Your task to perform on an android device: toggle data saver in the chrome app Image 0: 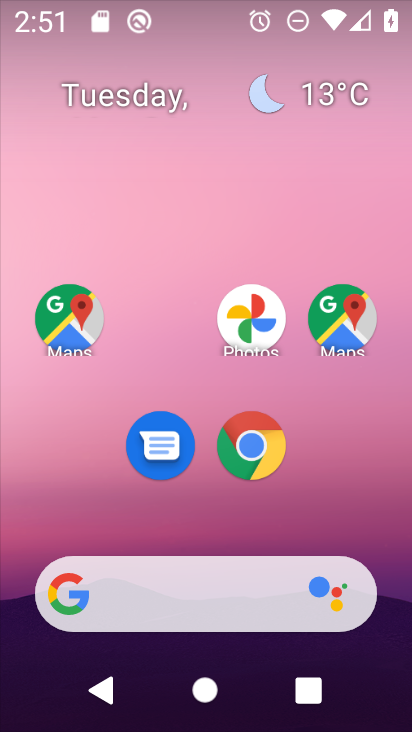
Step 0: drag from (371, 531) to (388, 268)
Your task to perform on an android device: toggle data saver in the chrome app Image 1: 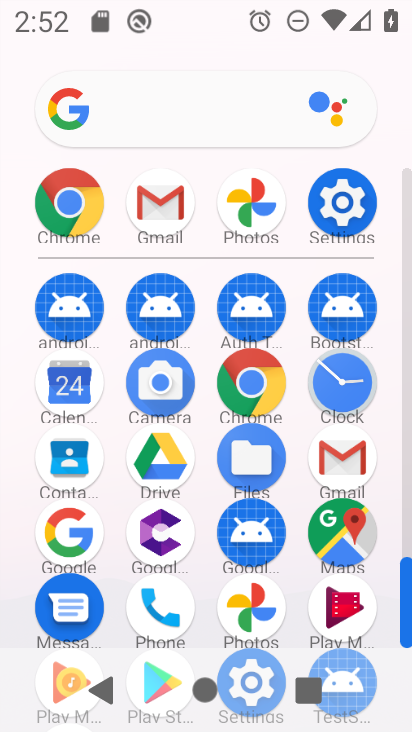
Step 1: click (259, 392)
Your task to perform on an android device: toggle data saver in the chrome app Image 2: 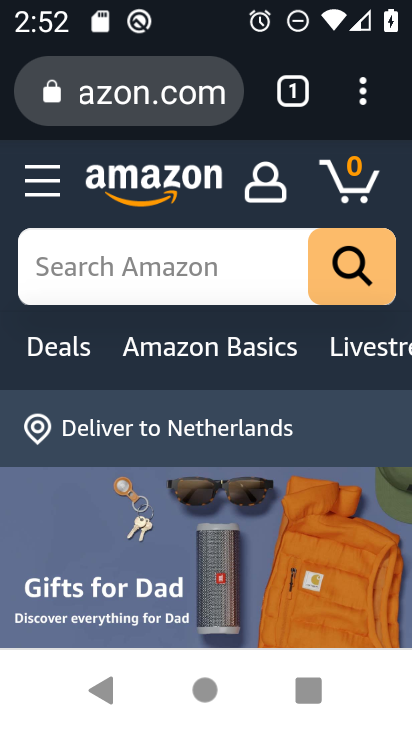
Step 2: click (364, 104)
Your task to perform on an android device: toggle data saver in the chrome app Image 3: 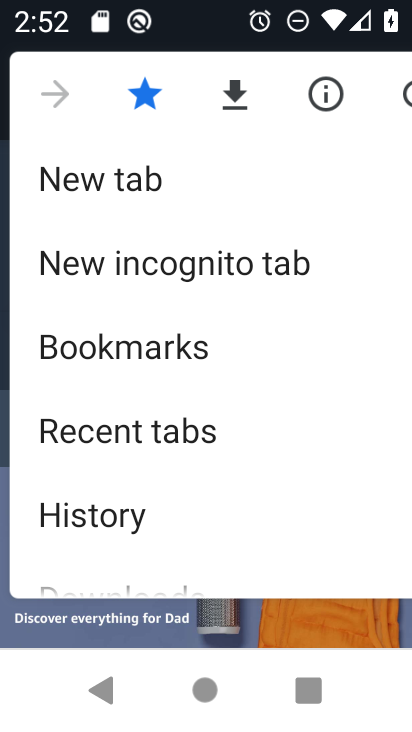
Step 3: drag from (280, 498) to (274, 375)
Your task to perform on an android device: toggle data saver in the chrome app Image 4: 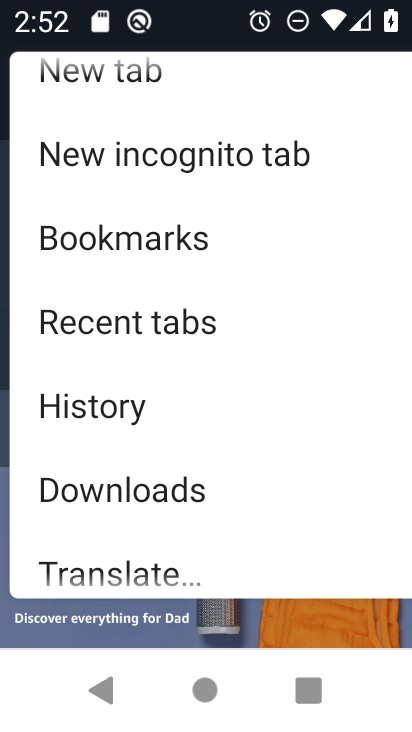
Step 4: drag from (319, 511) to (305, 377)
Your task to perform on an android device: toggle data saver in the chrome app Image 5: 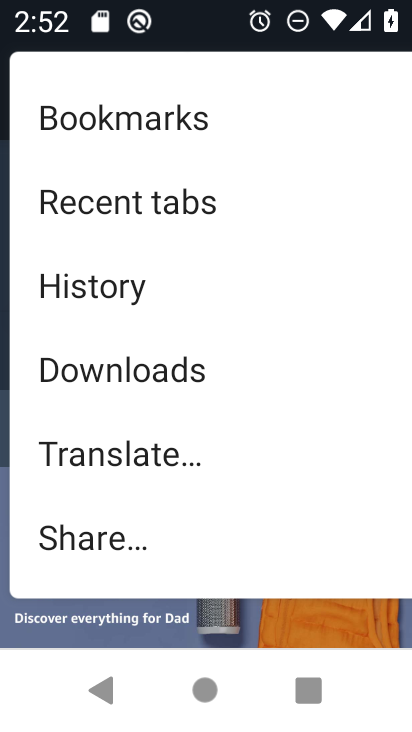
Step 5: drag from (303, 523) to (308, 413)
Your task to perform on an android device: toggle data saver in the chrome app Image 6: 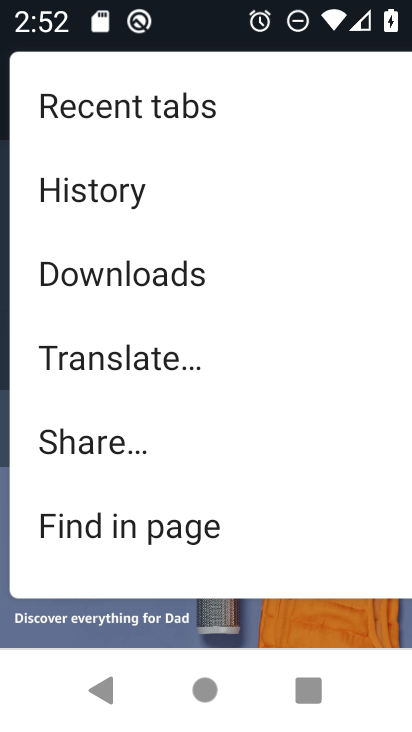
Step 6: drag from (313, 542) to (321, 463)
Your task to perform on an android device: toggle data saver in the chrome app Image 7: 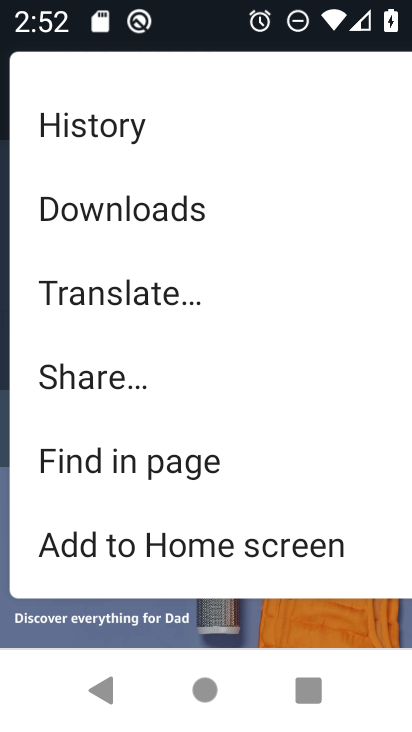
Step 7: drag from (357, 556) to (356, 435)
Your task to perform on an android device: toggle data saver in the chrome app Image 8: 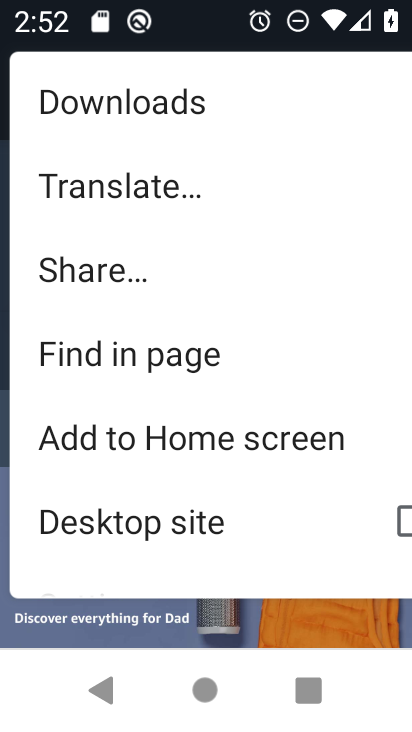
Step 8: drag from (341, 528) to (344, 399)
Your task to perform on an android device: toggle data saver in the chrome app Image 9: 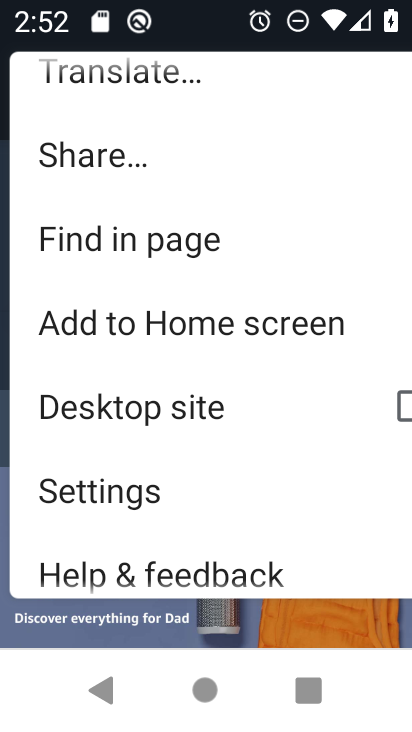
Step 9: drag from (305, 521) to (311, 392)
Your task to perform on an android device: toggle data saver in the chrome app Image 10: 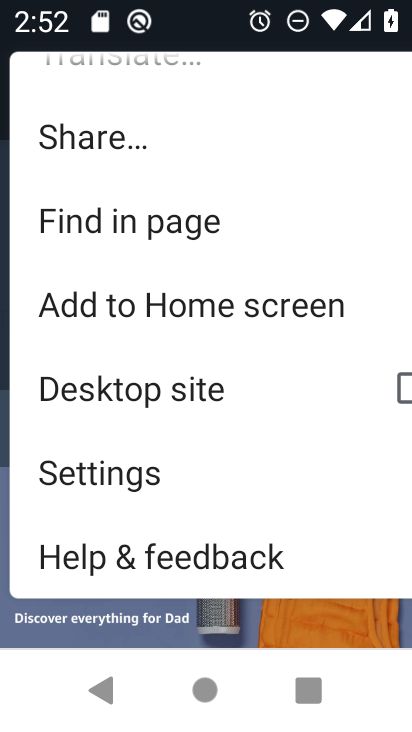
Step 10: click (101, 480)
Your task to perform on an android device: toggle data saver in the chrome app Image 11: 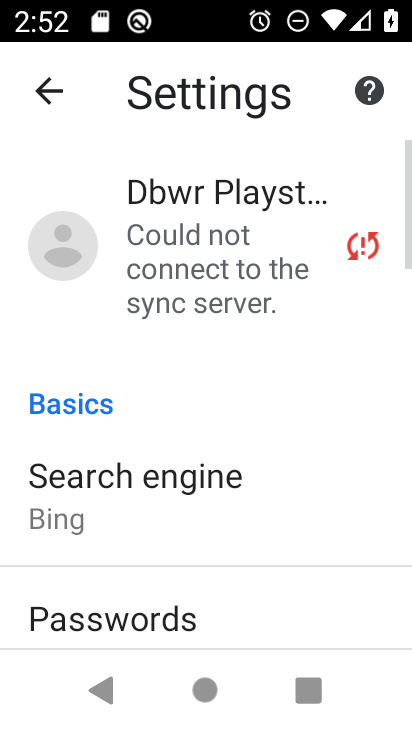
Step 11: drag from (324, 529) to (326, 442)
Your task to perform on an android device: toggle data saver in the chrome app Image 12: 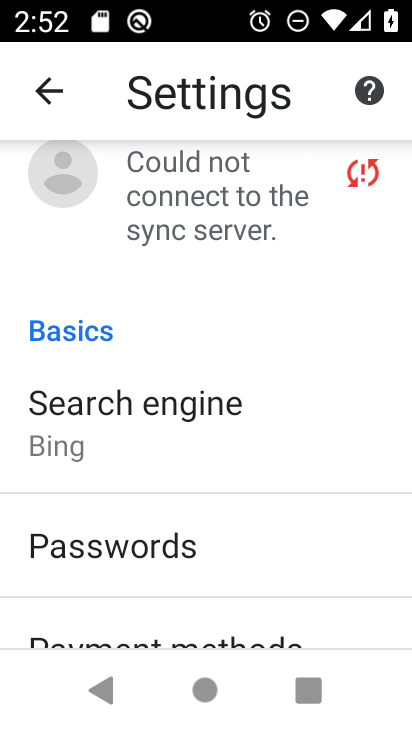
Step 12: drag from (334, 567) to (331, 482)
Your task to perform on an android device: toggle data saver in the chrome app Image 13: 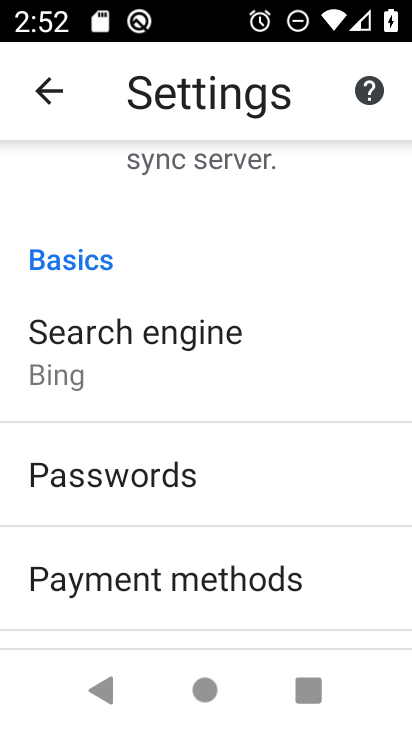
Step 13: drag from (344, 575) to (344, 478)
Your task to perform on an android device: toggle data saver in the chrome app Image 14: 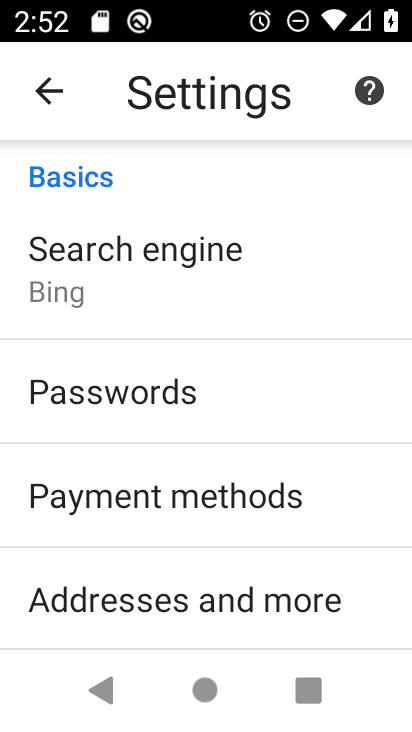
Step 14: drag from (362, 589) to (351, 513)
Your task to perform on an android device: toggle data saver in the chrome app Image 15: 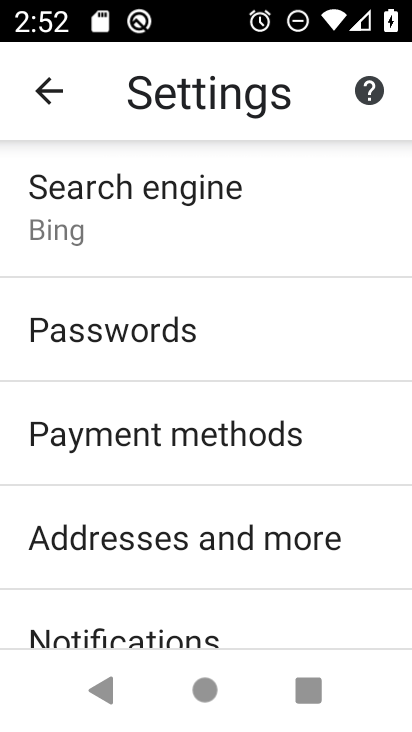
Step 15: drag from (320, 575) to (323, 469)
Your task to perform on an android device: toggle data saver in the chrome app Image 16: 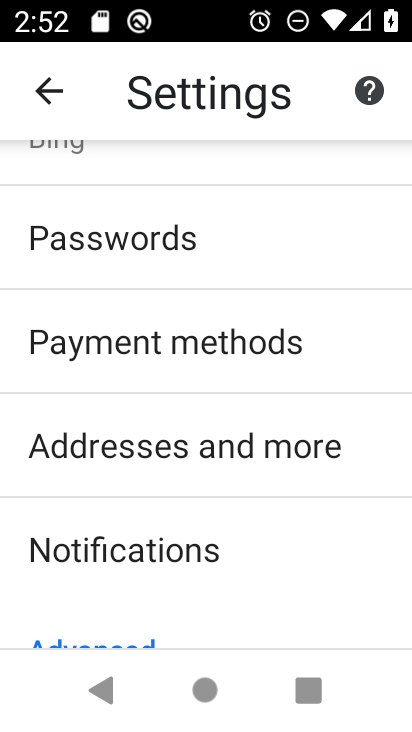
Step 16: drag from (332, 581) to (325, 473)
Your task to perform on an android device: toggle data saver in the chrome app Image 17: 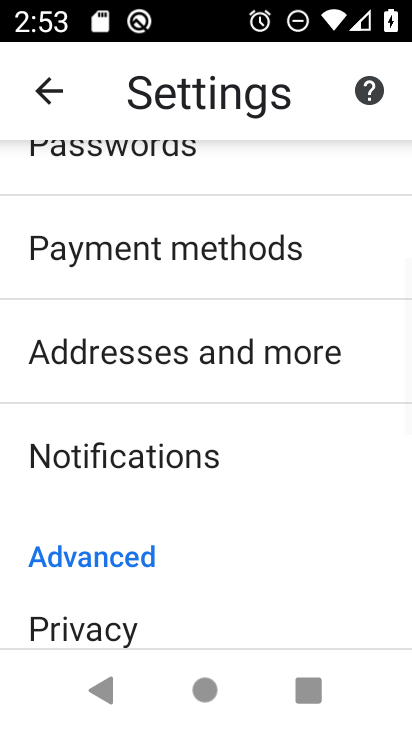
Step 17: drag from (321, 592) to (328, 502)
Your task to perform on an android device: toggle data saver in the chrome app Image 18: 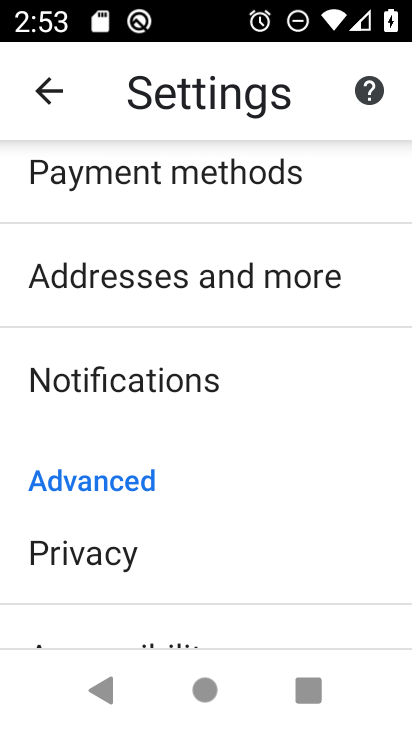
Step 18: drag from (356, 605) to (356, 489)
Your task to perform on an android device: toggle data saver in the chrome app Image 19: 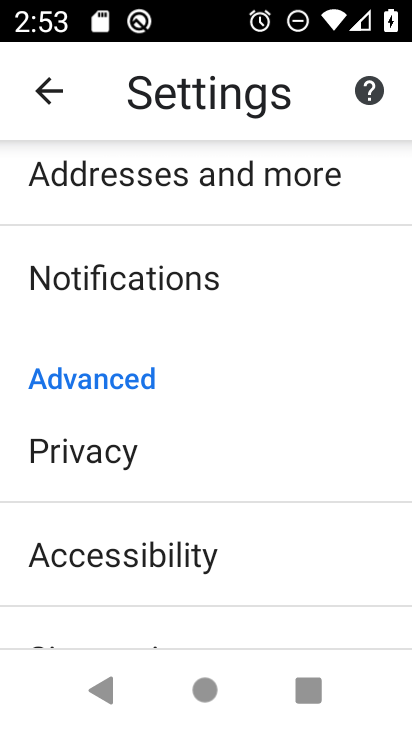
Step 19: drag from (357, 587) to (344, 464)
Your task to perform on an android device: toggle data saver in the chrome app Image 20: 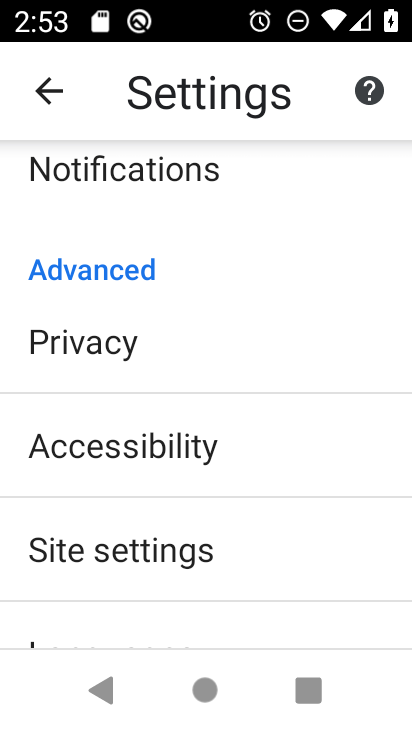
Step 20: drag from (336, 582) to (333, 478)
Your task to perform on an android device: toggle data saver in the chrome app Image 21: 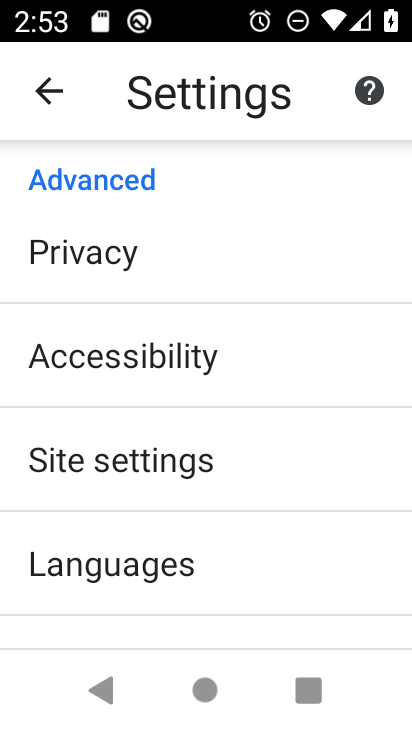
Step 21: drag from (336, 610) to (337, 445)
Your task to perform on an android device: toggle data saver in the chrome app Image 22: 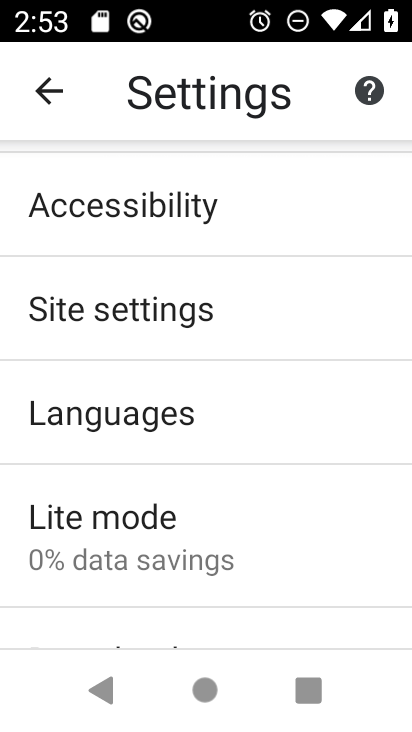
Step 22: click (215, 545)
Your task to perform on an android device: toggle data saver in the chrome app Image 23: 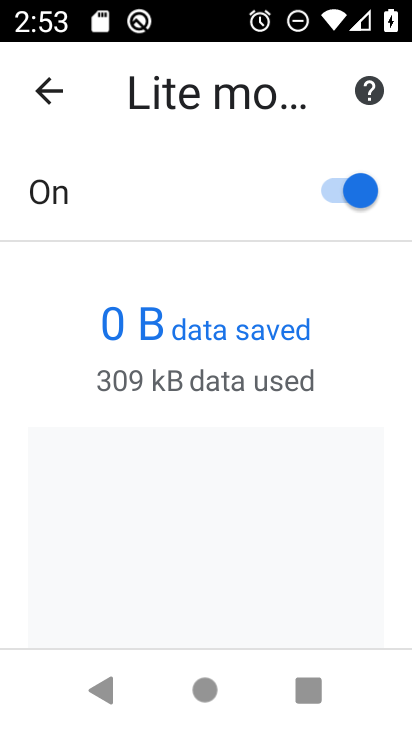
Step 23: click (349, 203)
Your task to perform on an android device: toggle data saver in the chrome app Image 24: 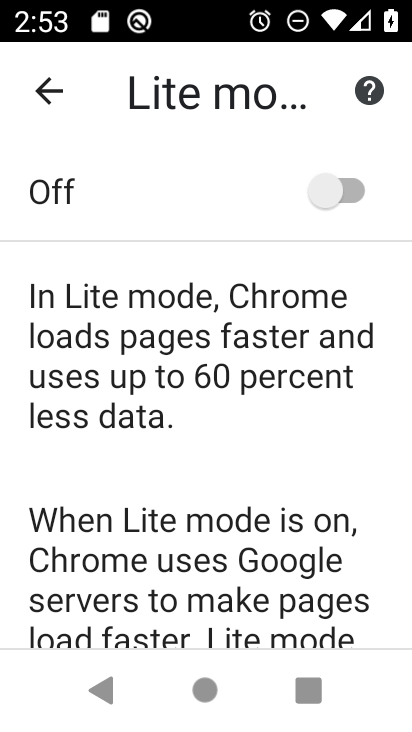
Step 24: task complete